Your task to perform on an android device: Go to display settings Image 0: 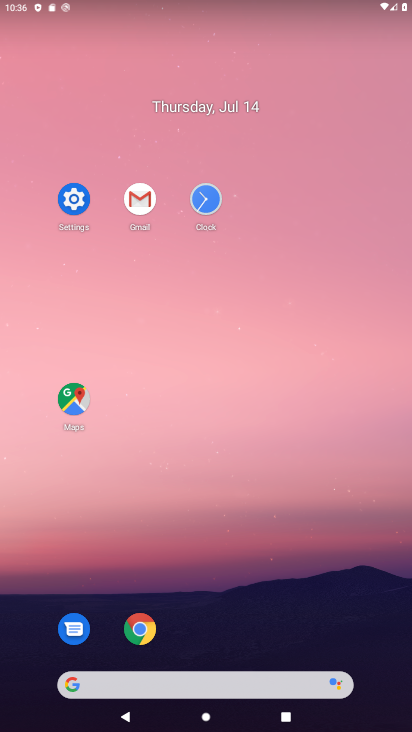
Step 0: click (68, 206)
Your task to perform on an android device: Go to display settings Image 1: 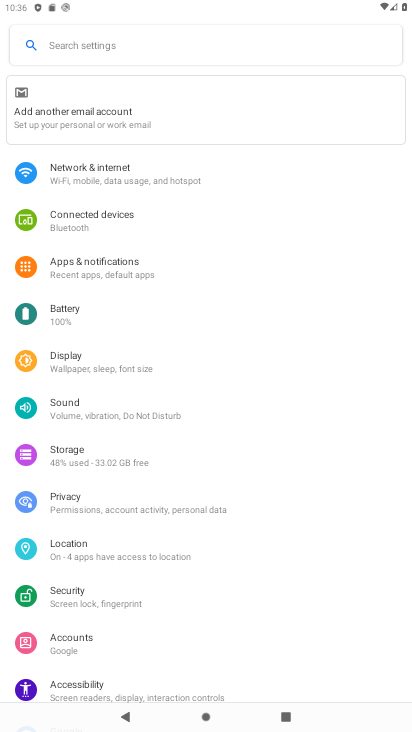
Step 1: click (113, 507)
Your task to perform on an android device: Go to display settings Image 2: 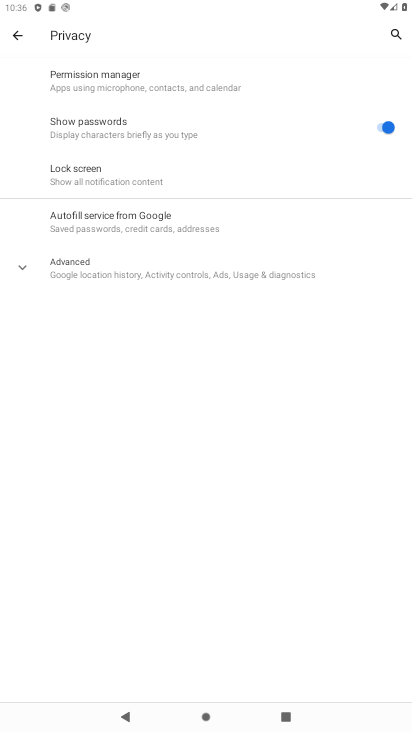
Step 2: task complete